Your task to perform on an android device: turn on improve location accuracy Image 0: 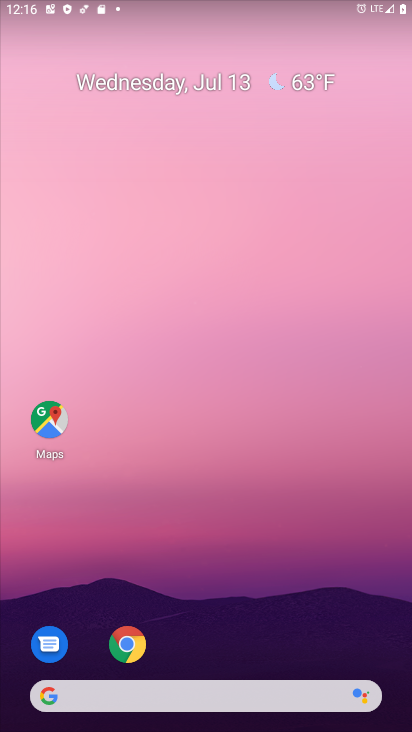
Step 0: drag from (192, 698) to (196, 115)
Your task to perform on an android device: turn on improve location accuracy Image 1: 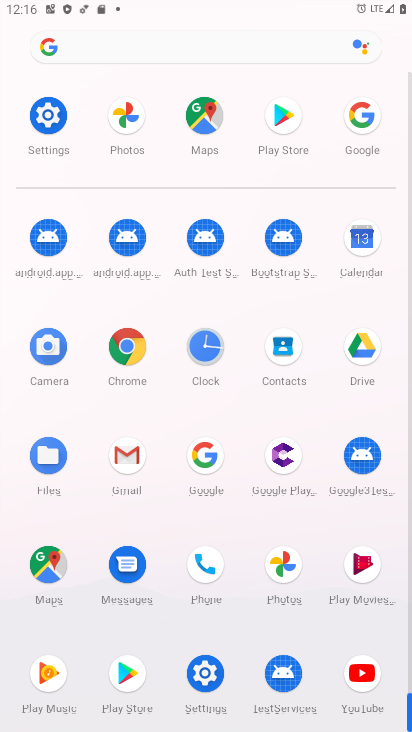
Step 1: click (48, 116)
Your task to perform on an android device: turn on improve location accuracy Image 2: 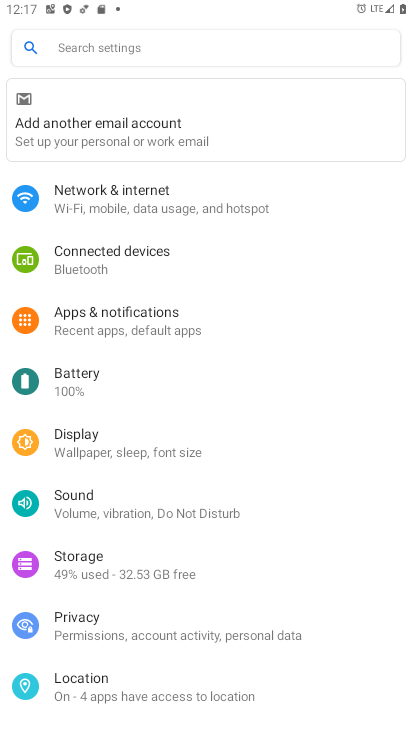
Step 2: click (90, 687)
Your task to perform on an android device: turn on improve location accuracy Image 3: 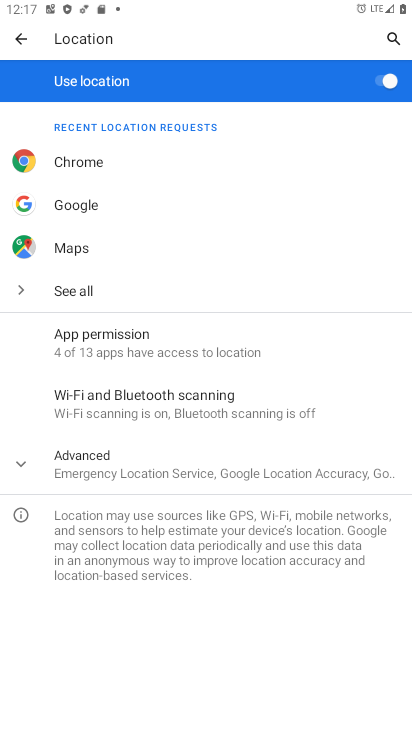
Step 3: click (144, 473)
Your task to perform on an android device: turn on improve location accuracy Image 4: 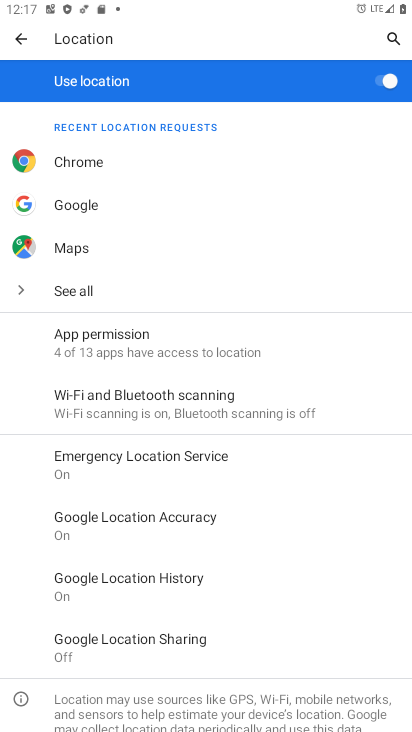
Step 4: click (148, 519)
Your task to perform on an android device: turn on improve location accuracy Image 5: 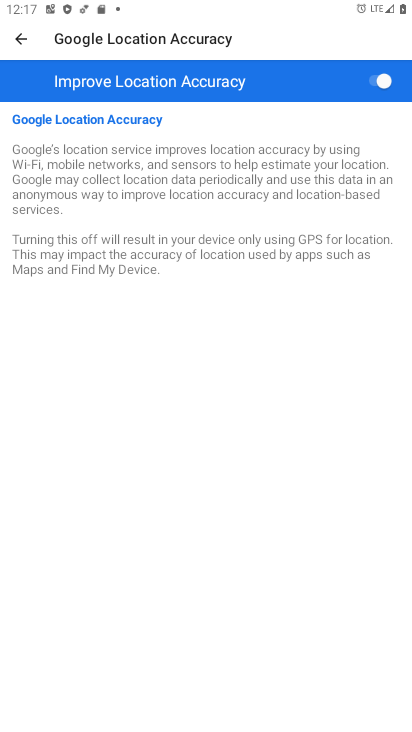
Step 5: task complete